Your task to perform on an android device: search for starred emails in the gmail app Image 0: 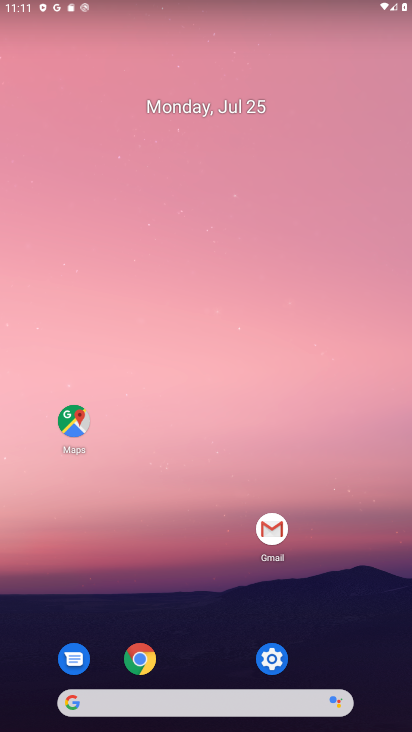
Step 0: click (284, 543)
Your task to perform on an android device: search for starred emails in the gmail app Image 1: 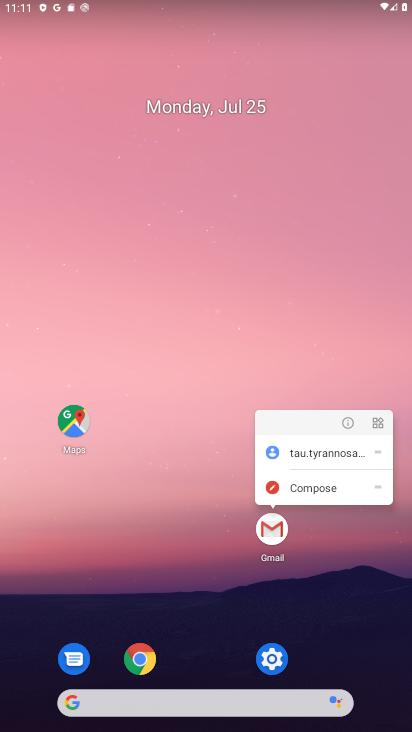
Step 1: click (284, 544)
Your task to perform on an android device: search for starred emails in the gmail app Image 2: 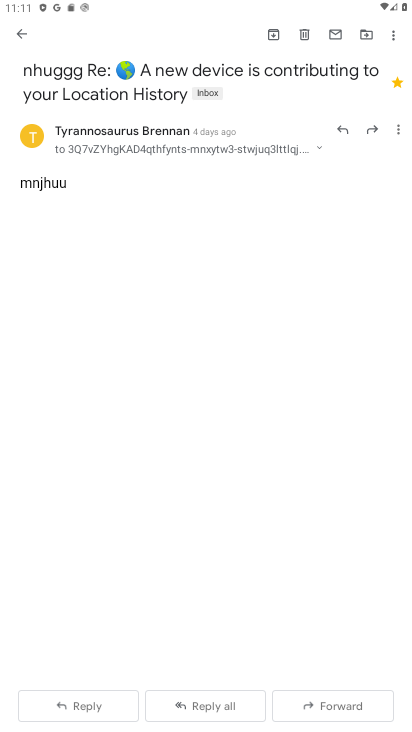
Step 2: click (24, 36)
Your task to perform on an android device: search for starred emails in the gmail app Image 3: 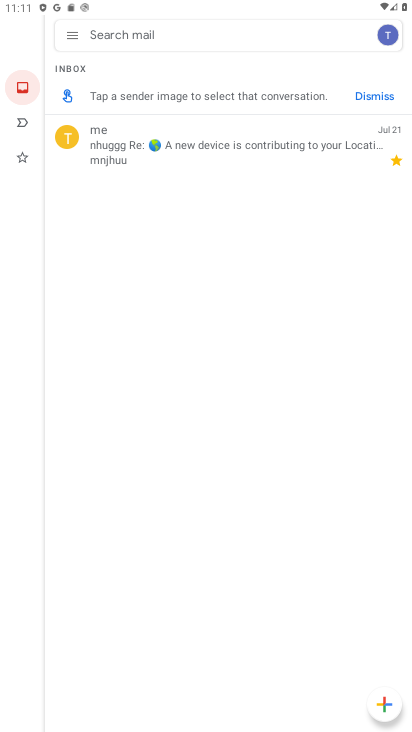
Step 3: click (74, 40)
Your task to perform on an android device: search for starred emails in the gmail app Image 4: 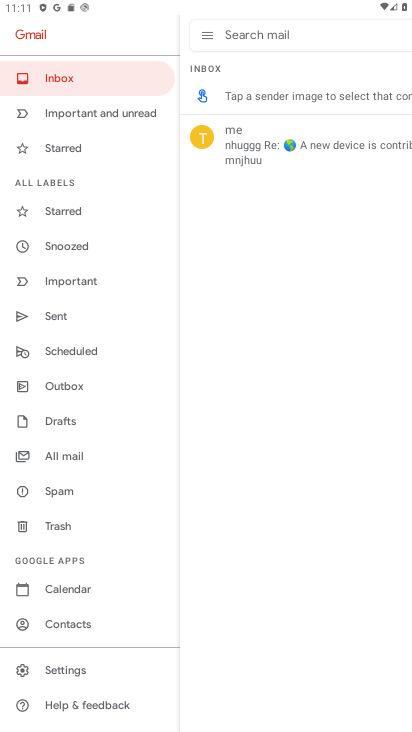
Step 4: click (59, 152)
Your task to perform on an android device: search for starred emails in the gmail app Image 5: 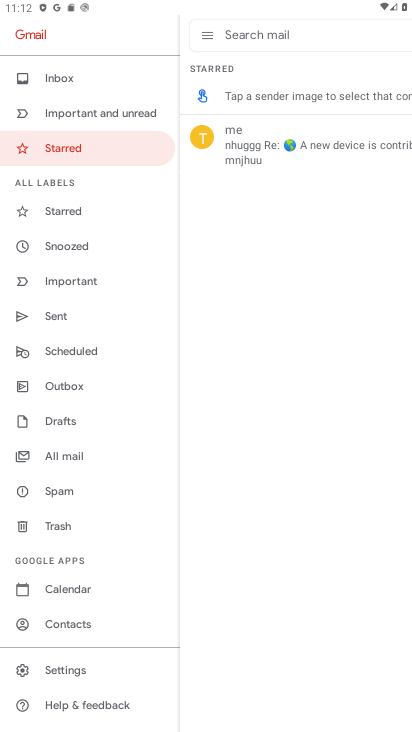
Step 5: task complete